Your task to perform on an android device: refresh tabs in the chrome app Image 0: 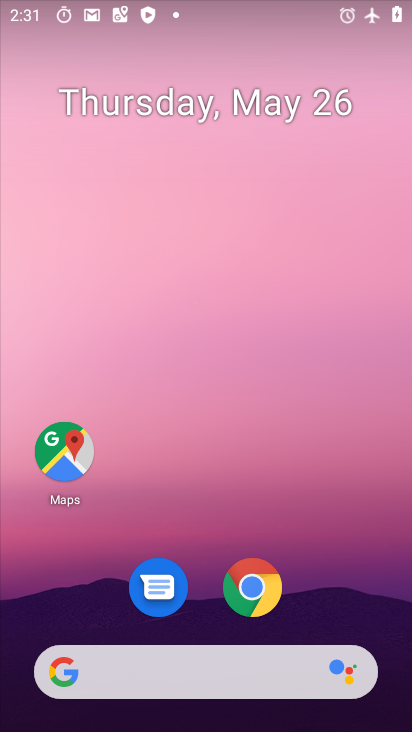
Step 0: drag from (200, 648) to (230, 184)
Your task to perform on an android device: refresh tabs in the chrome app Image 1: 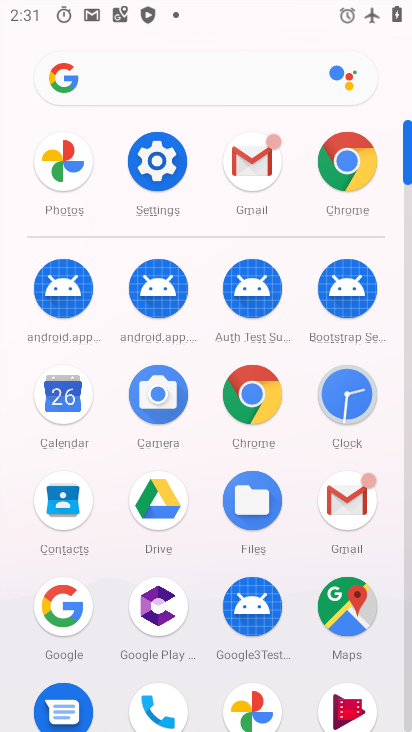
Step 1: click (333, 176)
Your task to perform on an android device: refresh tabs in the chrome app Image 2: 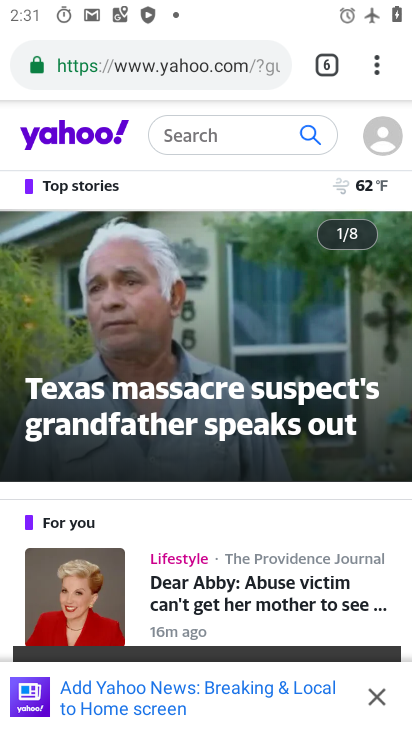
Step 2: click (365, 77)
Your task to perform on an android device: refresh tabs in the chrome app Image 3: 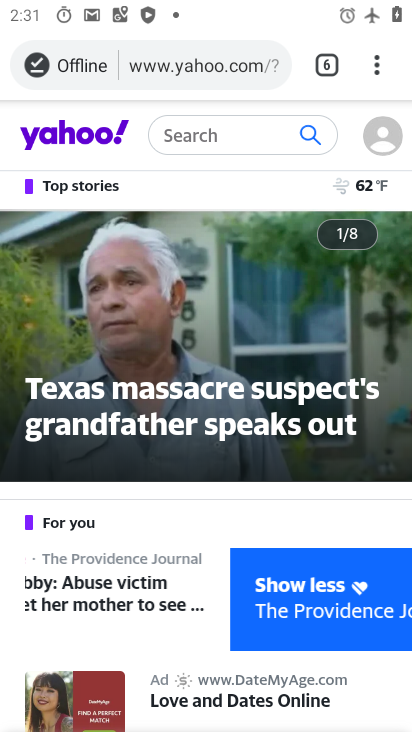
Step 3: task complete